Your task to perform on an android device: Open Reddit.com Image 0: 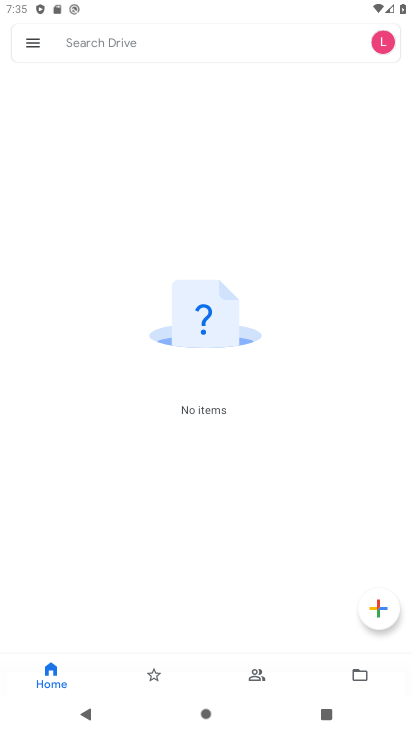
Step 0: press back button
Your task to perform on an android device: Open Reddit.com Image 1: 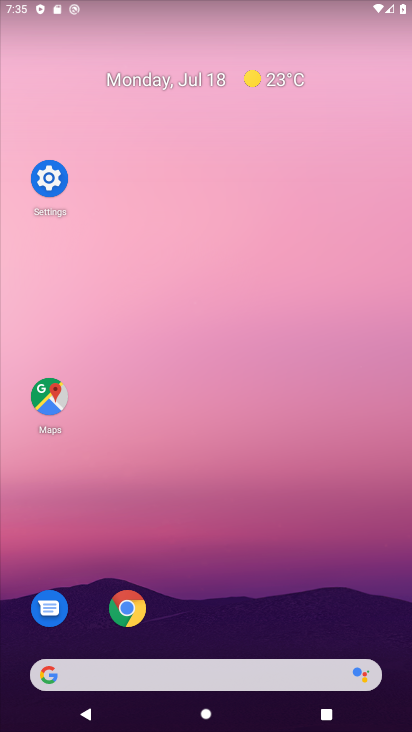
Step 1: click (113, 613)
Your task to perform on an android device: Open Reddit.com Image 2: 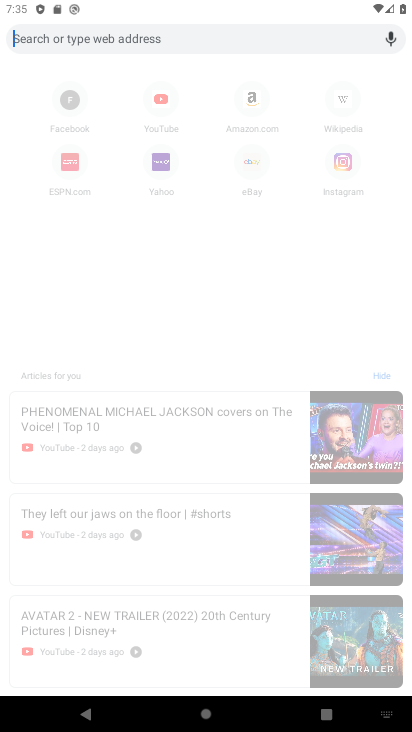
Step 2: click (134, 44)
Your task to perform on an android device: Open Reddit.com Image 3: 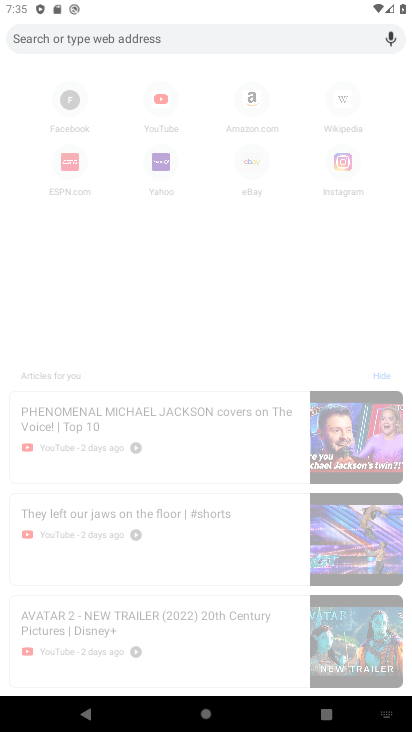
Step 3: type "reddit"
Your task to perform on an android device: Open Reddit.com Image 4: 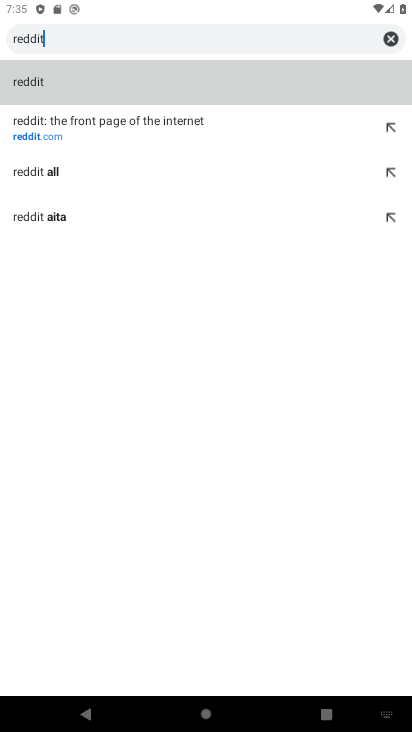
Step 4: click (95, 87)
Your task to perform on an android device: Open Reddit.com Image 5: 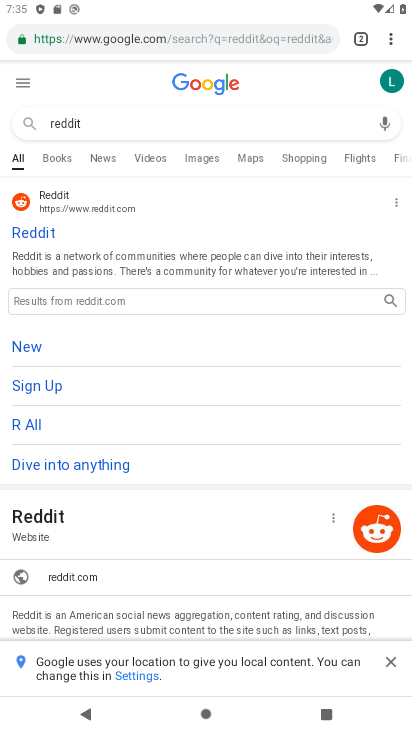
Step 5: click (47, 230)
Your task to perform on an android device: Open Reddit.com Image 6: 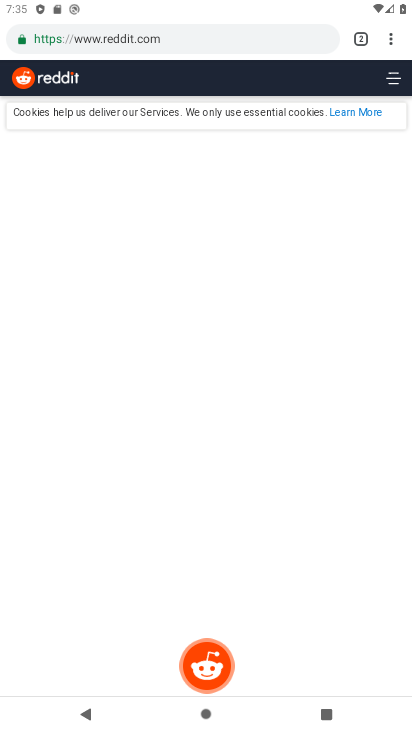
Step 6: task complete